Your task to perform on an android device: toggle show notifications on the lock screen Image 0: 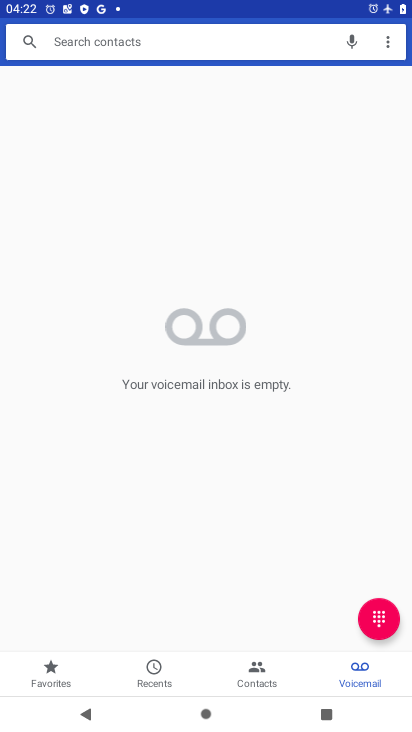
Step 0: press home button
Your task to perform on an android device: toggle show notifications on the lock screen Image 1: 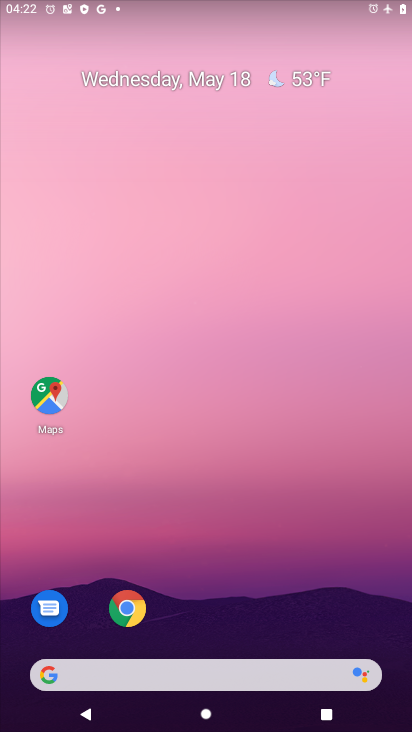
Step 1: drag from (223, 613) to (271, 53)
Your task to perform on an android device: toggle show notifications on the lock screen Image 2: 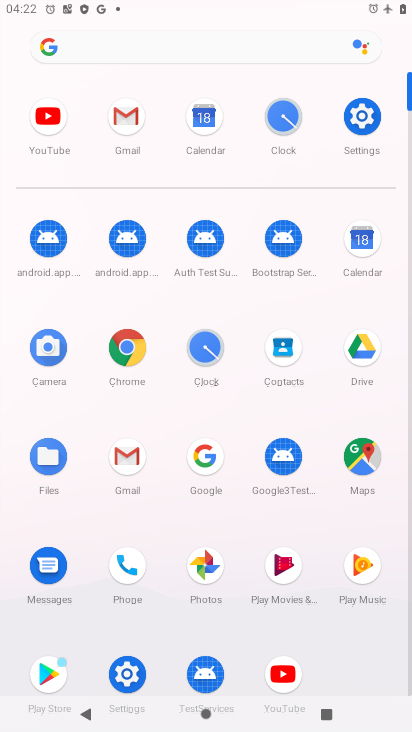
Step 2: click (367, 114)
Your task to perform on an android device: toggle show notifications on the lock screen Image 3: 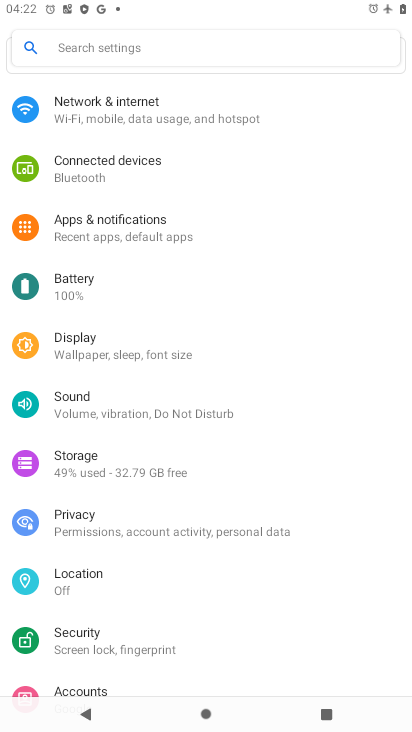
Step 3: click (111, 225)
Your task to perform on an android device: toggle show notifications on the lock screen Image 4: 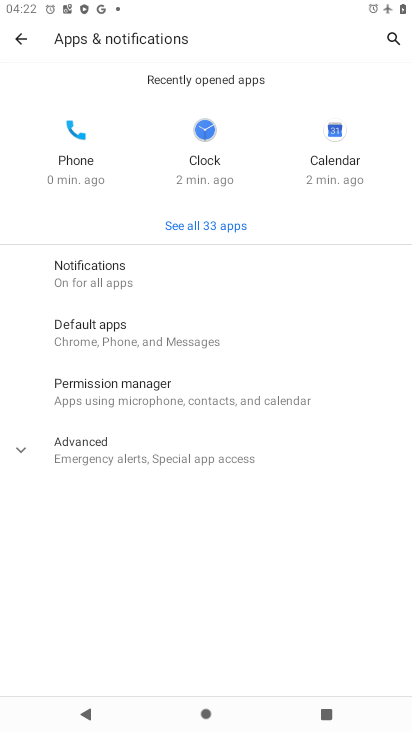
Step 4: click (89, 276)
Your task to perform on an android device: toggle show notifications on the lock screen Image 5: 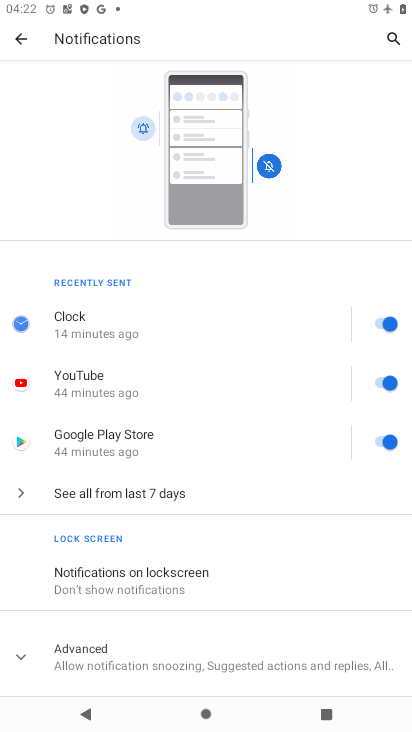
Step 5: drag from (143, 566) to (165, 364)
Your task to perform on an android device: toggle show notifications on the lock screen Image 6: 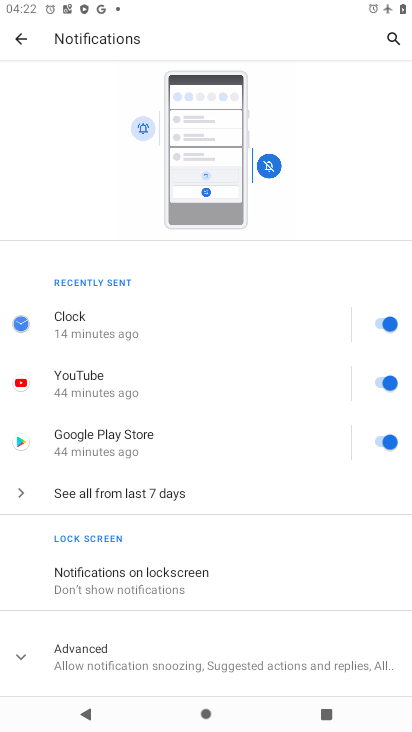
Step 6: click (97, 583)
Your task to perform on an android device: toggle show notifications on the lock screen Image 7: 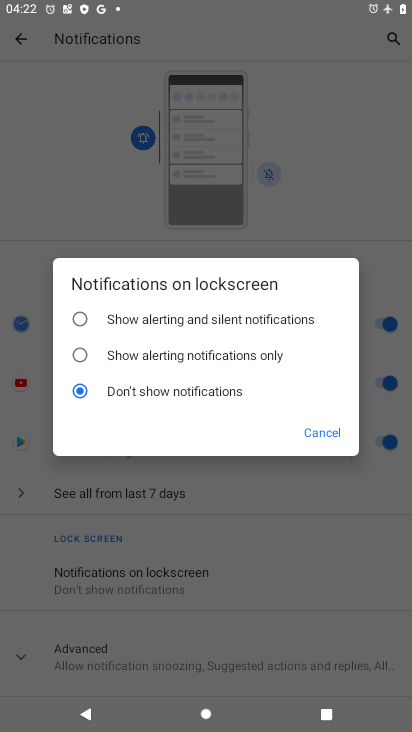
Step 7: click (77, 317)
Your task to perform on an android device: toggle show notifications on the lock screen Image 8: 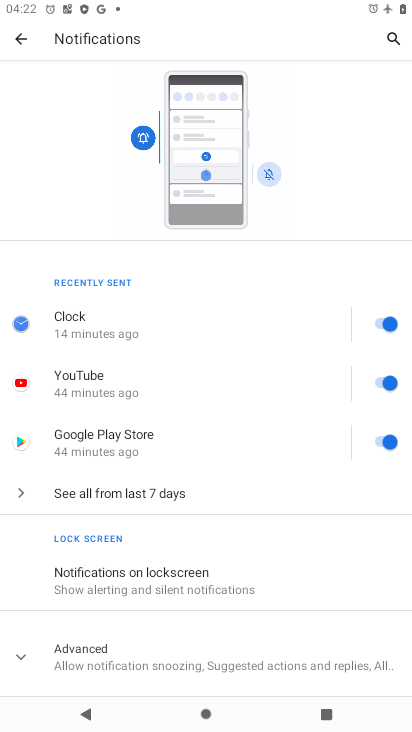
Step 8: task complete